Your task to perform on an android device: turn pop-ups off in chrome Image 0: 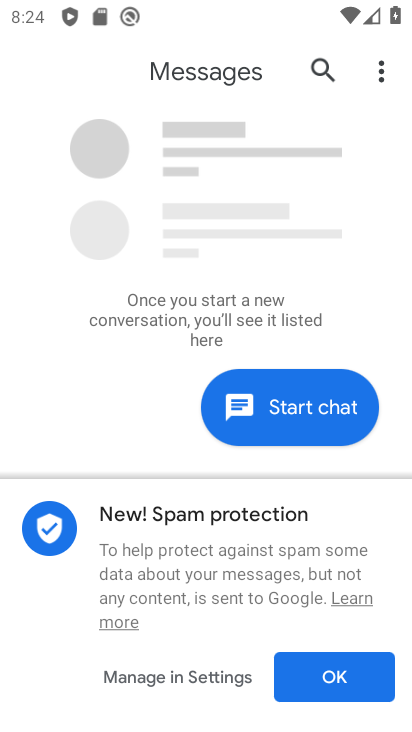
Step 0: press home button
Your task to perform on an android device: turn pop-ups off in chrome Image 1: 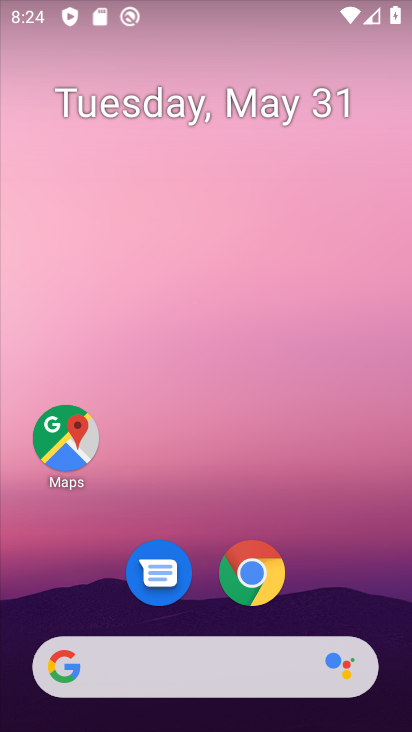
Step 1: click (263, 562)
Your task to perform on an android device: turn pop-ups off in chrome Image 2: 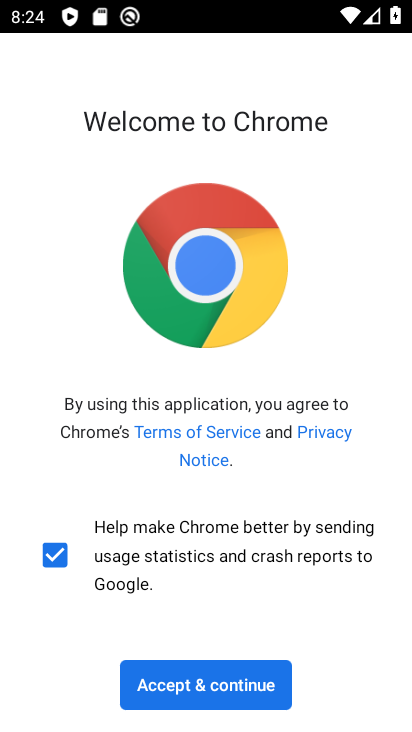
Step 2: click (246, 681)
Your task to perform on an android device: turn pop-ups off in chrome Image 3: 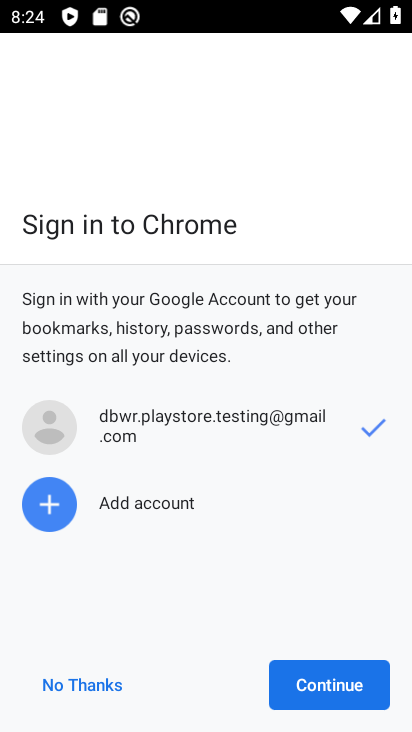
Step 3: click (349, 683)
Your task to perform on an android device: turn pop-ups off in chrome Image 4: 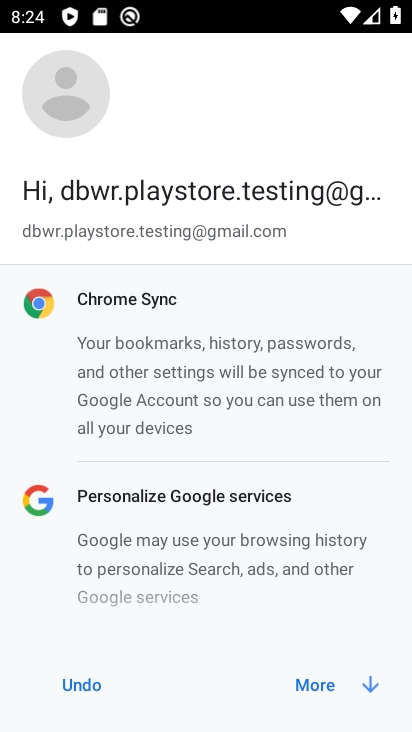
Step 4: click (349, 683)
Your task to perform on an android device: turn pop-ups off in chrome Image 5: 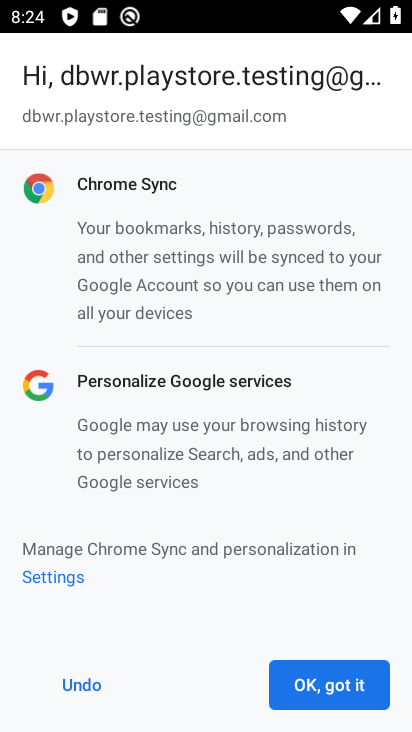
Step 5: click (349, 683)
Your task to perform on an android device: turn pop-ups off in chrome Image 6: 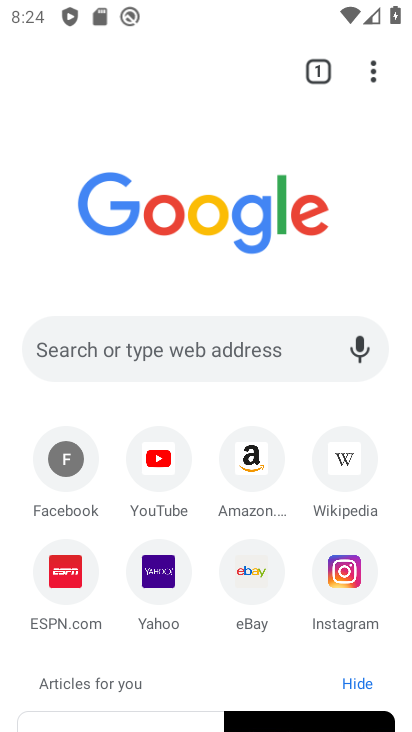
Step 6: click (383, 68)
Your task to perform on an android device: turn pop-ups off in chrome Image 7: 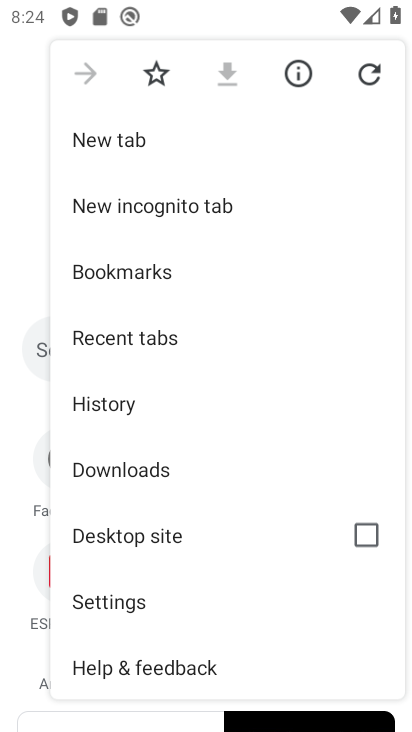
Step 7: click (131, 610)
Your task to perform on an android device: turn pop-ups off in chrome Image 8: 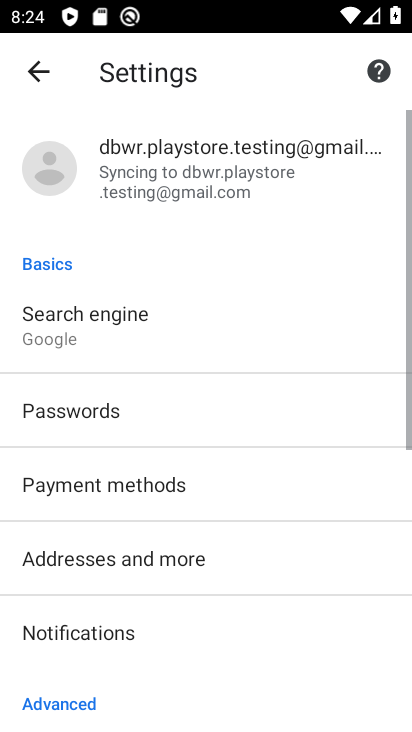
Step 8: drag from (98, 566) to (230, 148)
Your task to perform on an android device: turn pop-ups off in chrome Image 9: 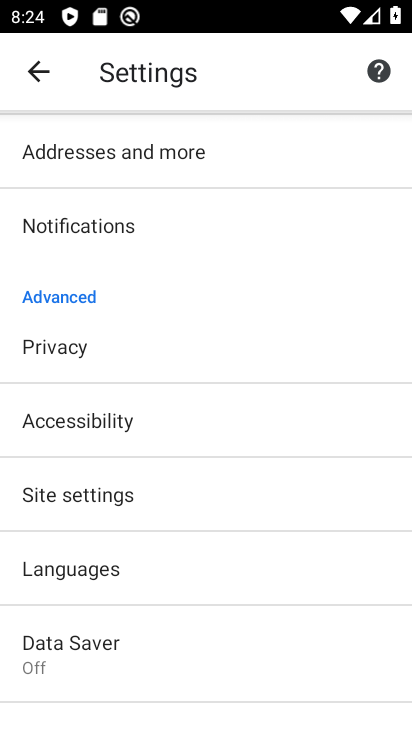
Step 9: click (143, 498)
Your task to perform on an android device: turn pop-ups off in chrome Image 10: 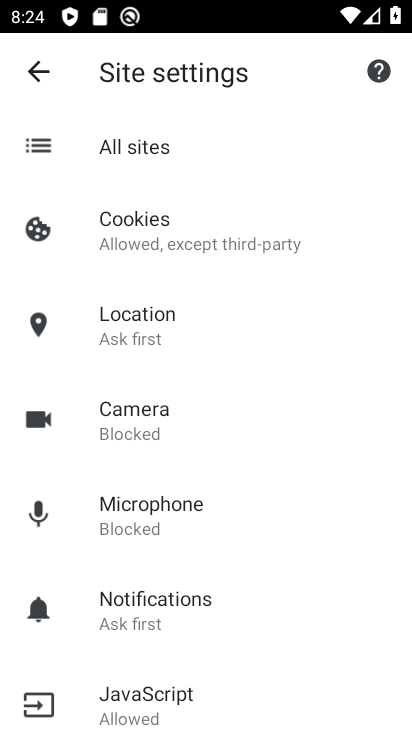
Step 10: drag from (188, 533) to (206, 162)
Your task to perform on an android device: turn pop-ups off in chrome Image 11: 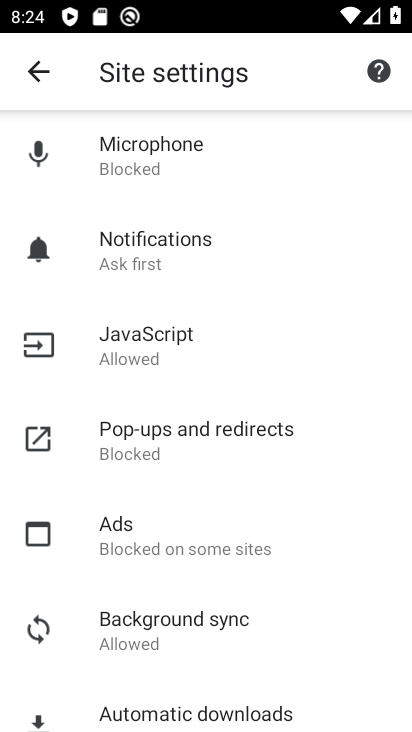
Step 11: click (174, 436)
Your task to perform on an android device: turn pop-ups off in chrome Image 12: 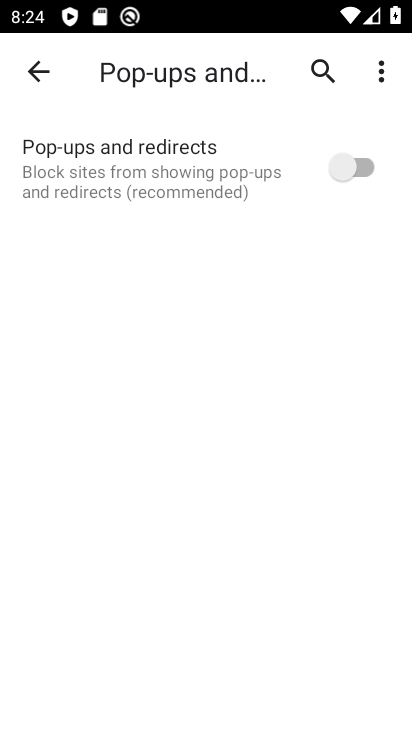
Step 12: task complete